Your task to perform on an android device: open app "VLC for Android" (install if not already installed) Image 0: 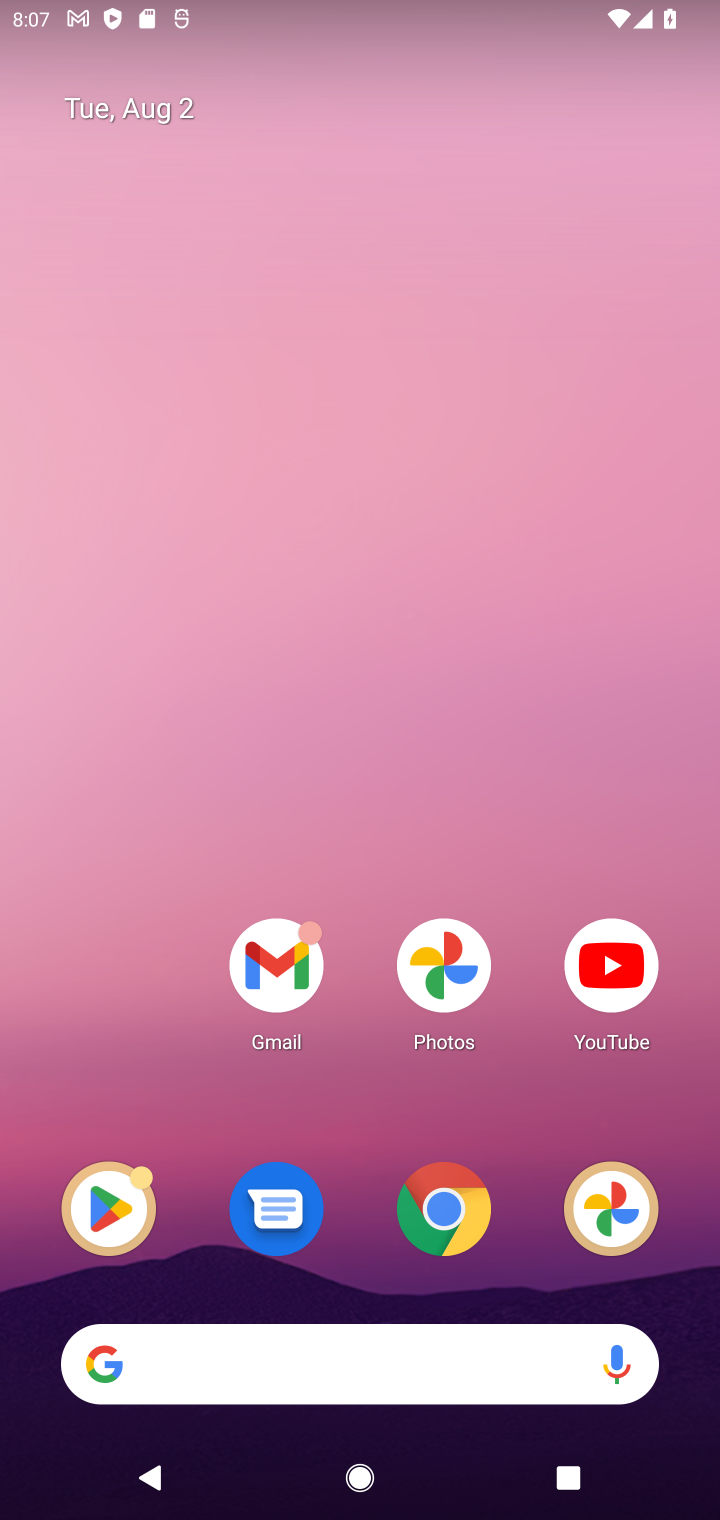
Step 0: drag from (346, 1189) to (483, 64)
Your task to perform on an android device: open app "VLC for Android" (install if not already installed) Image 1: 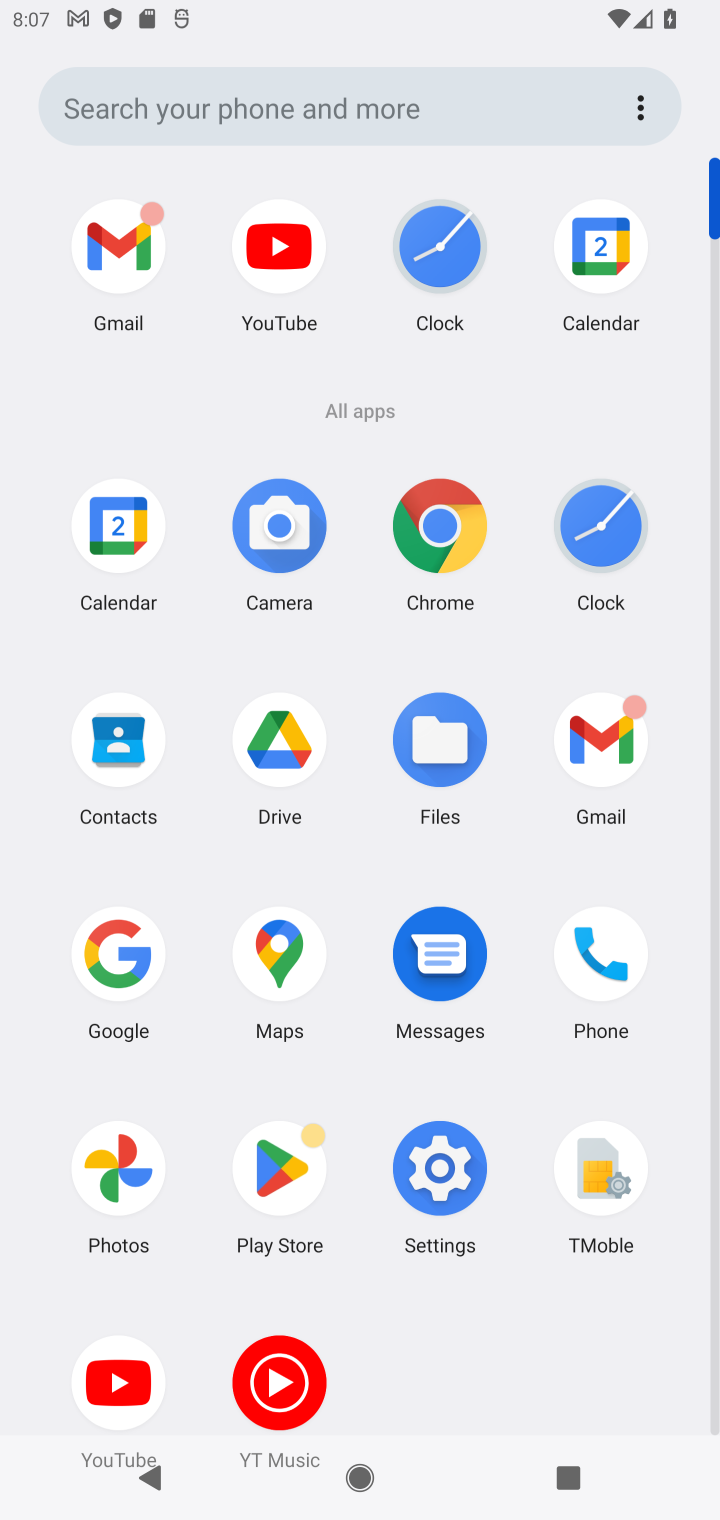
Step 1: click (264, 1194)
Your task to perform on an android device: open app "VLC for Android" (install if not already installed) Image 2: 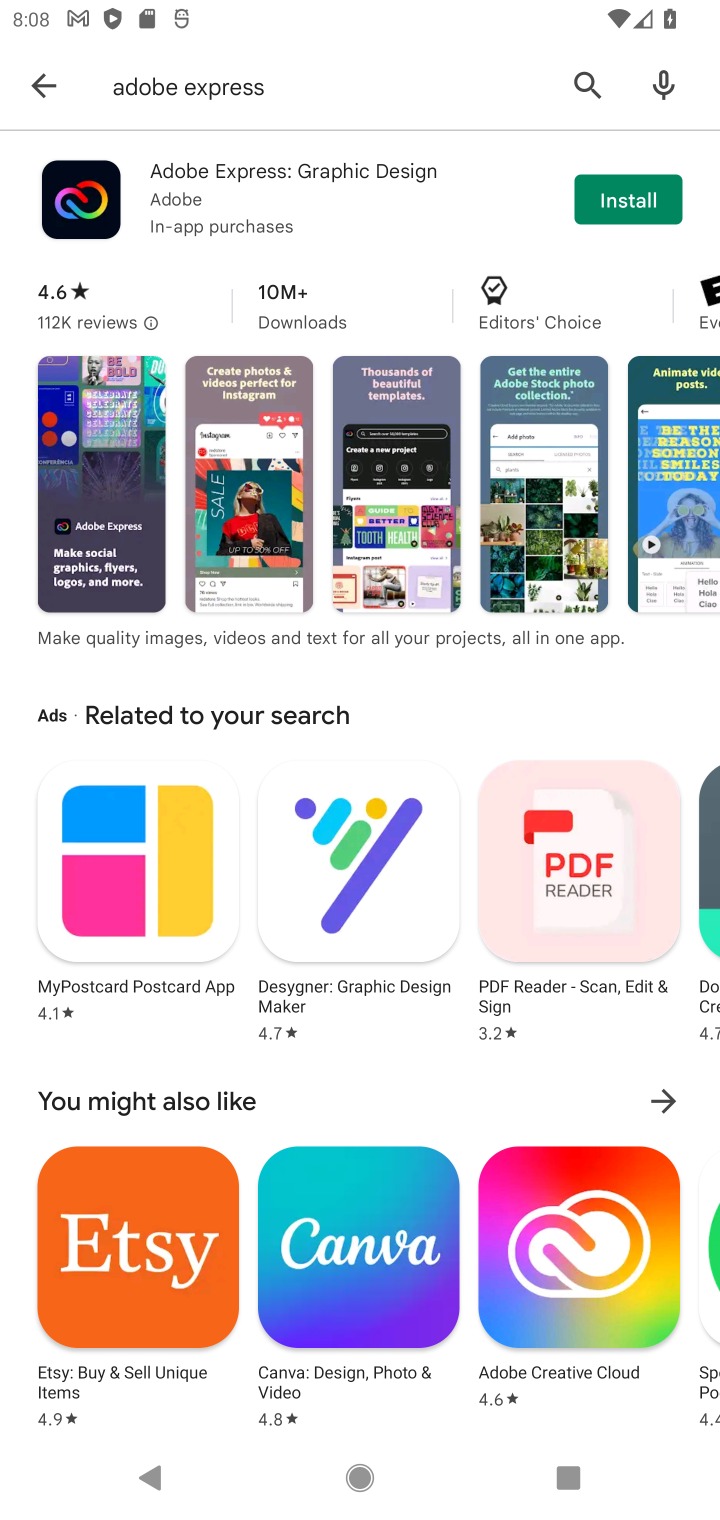
Step 2: click (22, 81)
Your task to perform on an android device: open app "VLC for Android" (install if not already installed) Image 3: 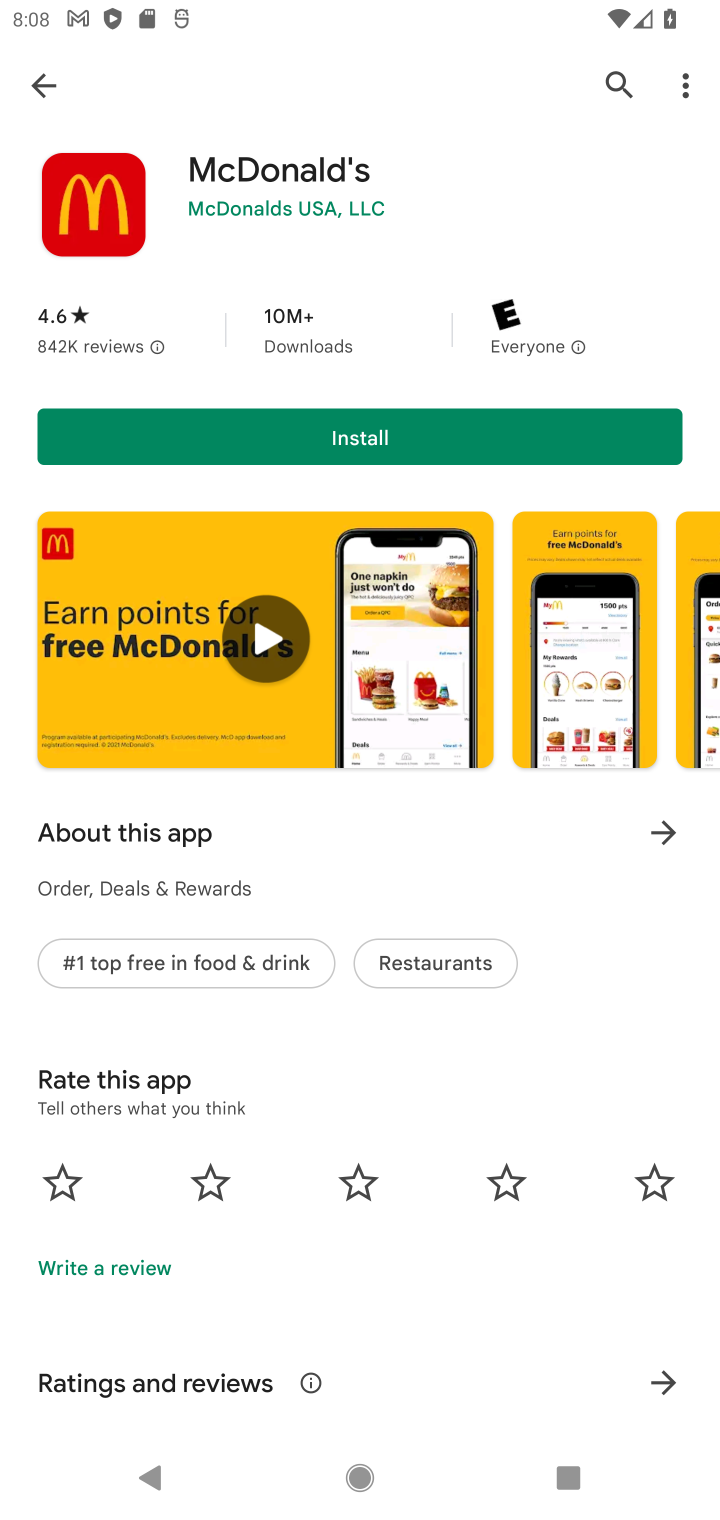
Step 3: click (48, 89)
Your task to perform on an android device: open app "VLC for Android" (install if not already installed) Image 4: 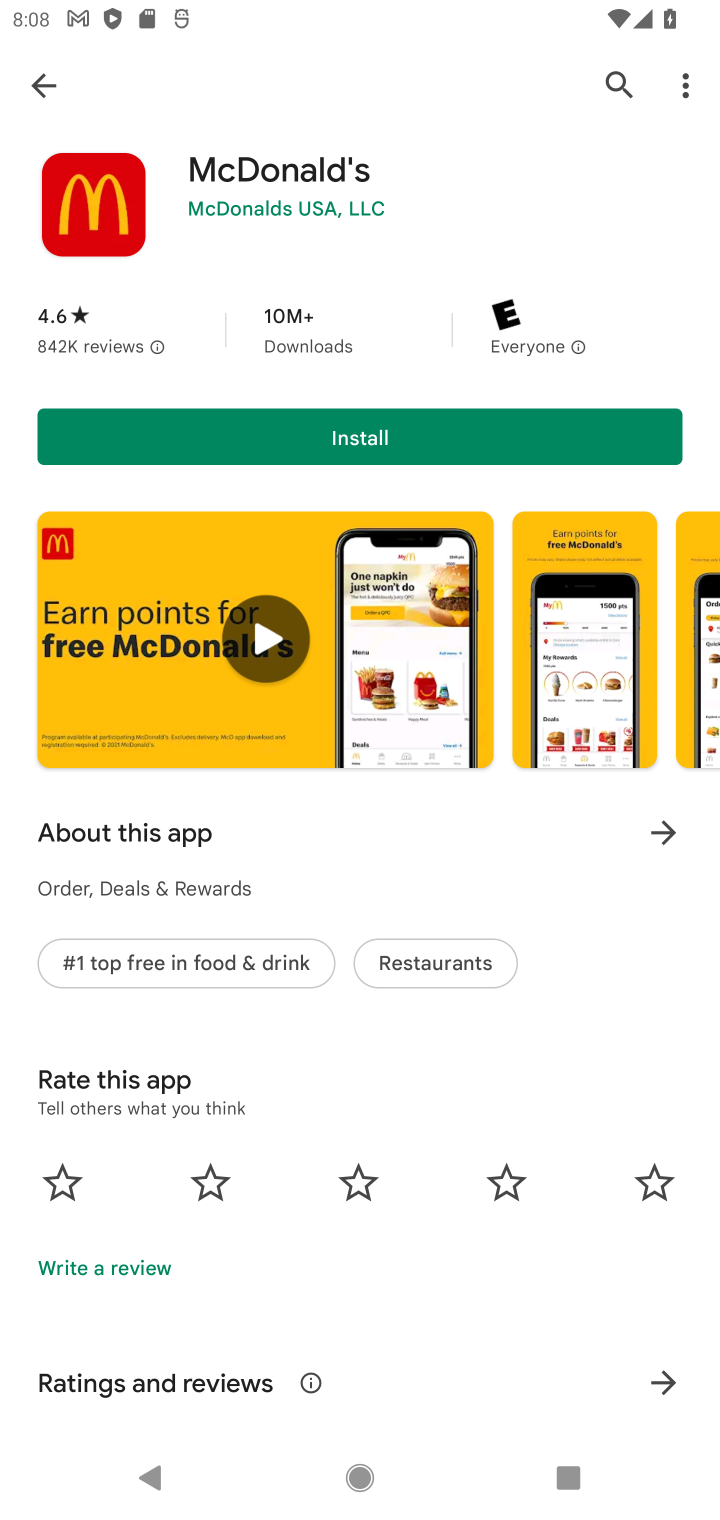
Step 4: click (20, 94)
Your task to perform on an android device: open app "VLC for Android" (install if not already installed) Image 5: 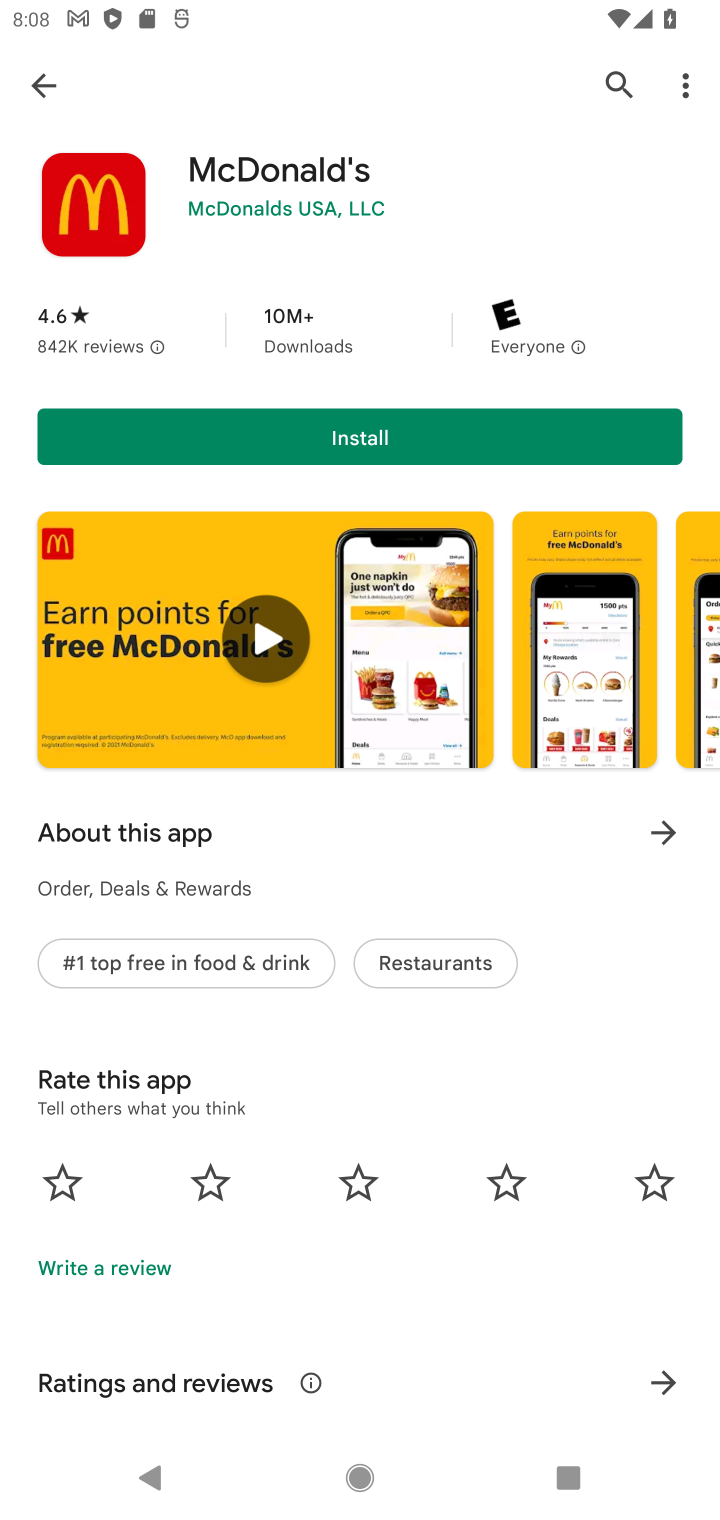
Step 5: click (40, 83)
Your task to perform on an android device: open app "VLC for Android" (install if not already installed) Image 6: 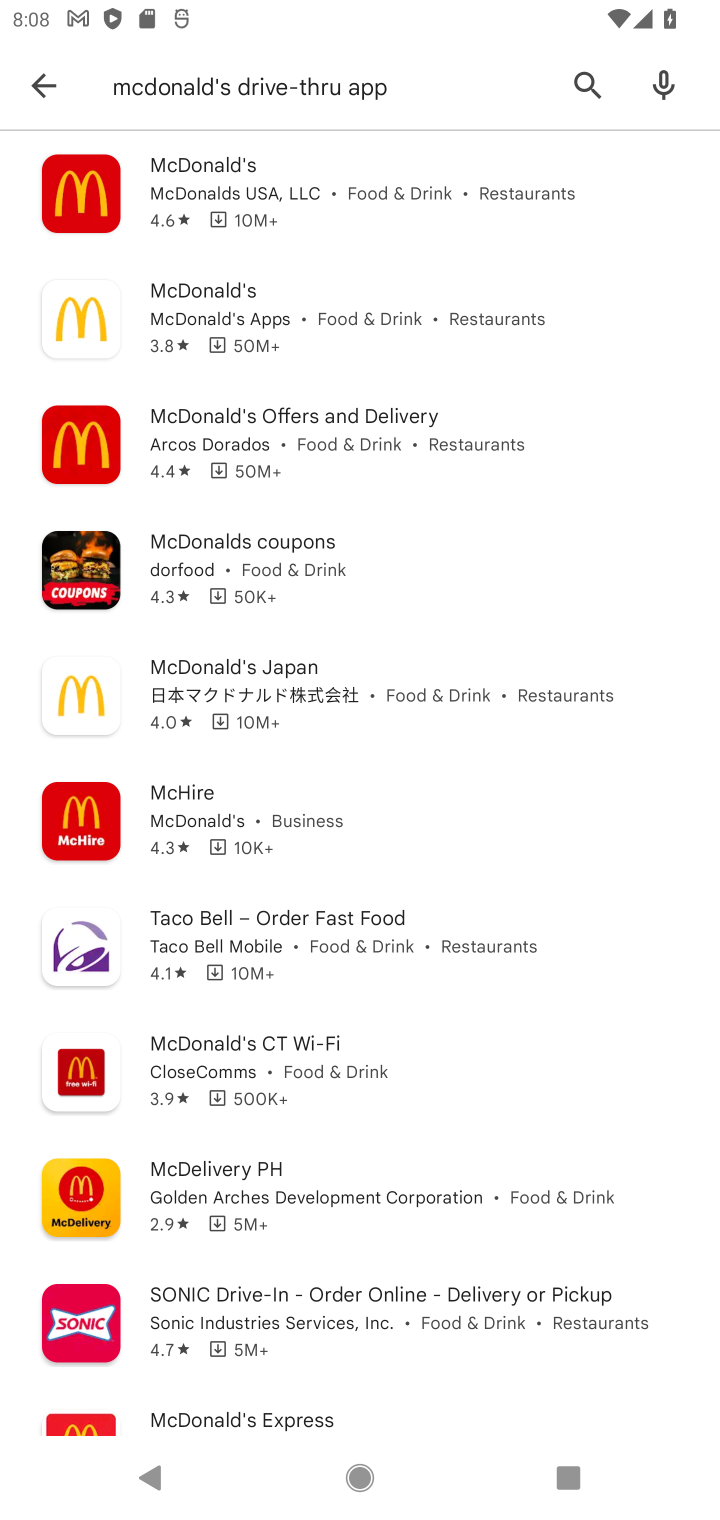
Step 6: click (33, 87)
Your task to perform on an android device: open app "VLC for Android" (install if not already installed) Image 7: 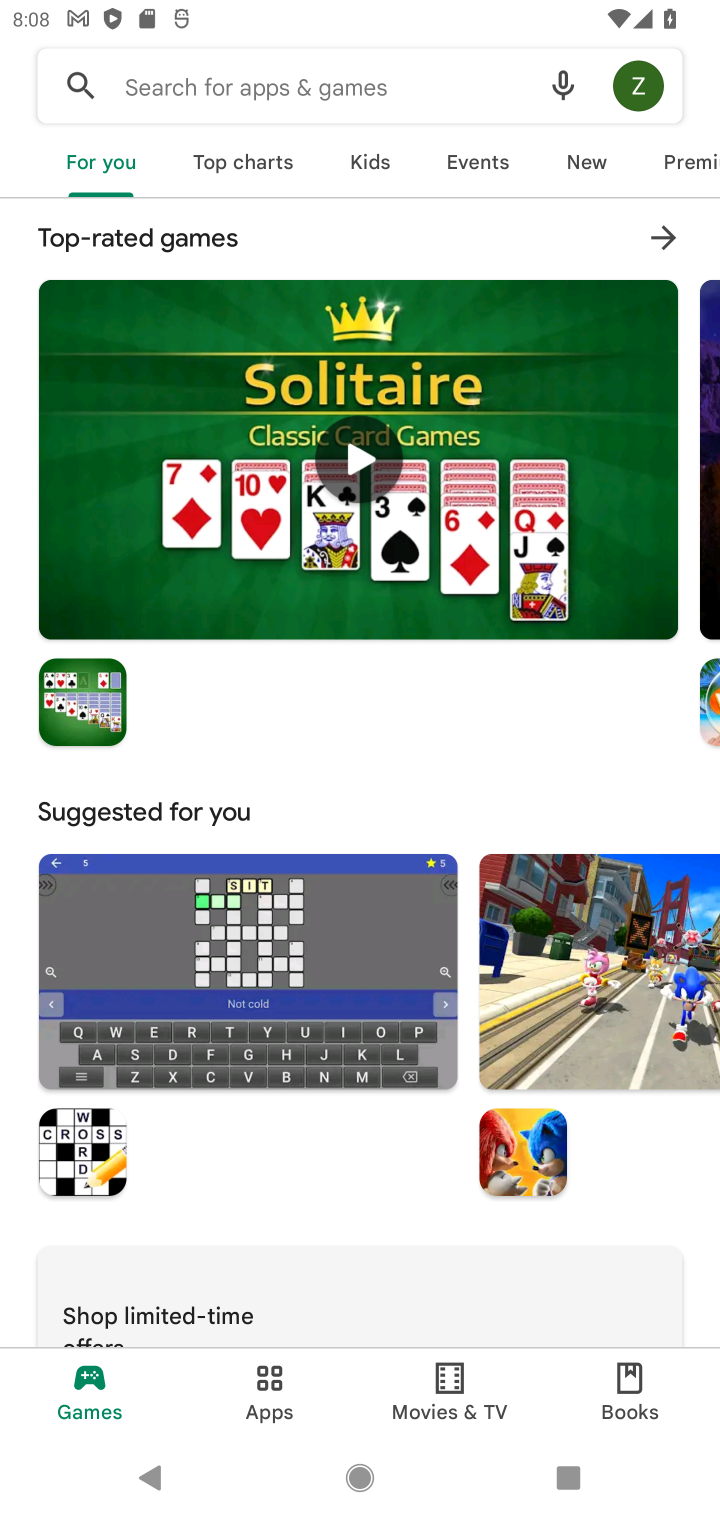
Step 7: click (442, 88)
Your task to perform on an android device: open app "VLC for Android" (install if not already installed) Image 8: 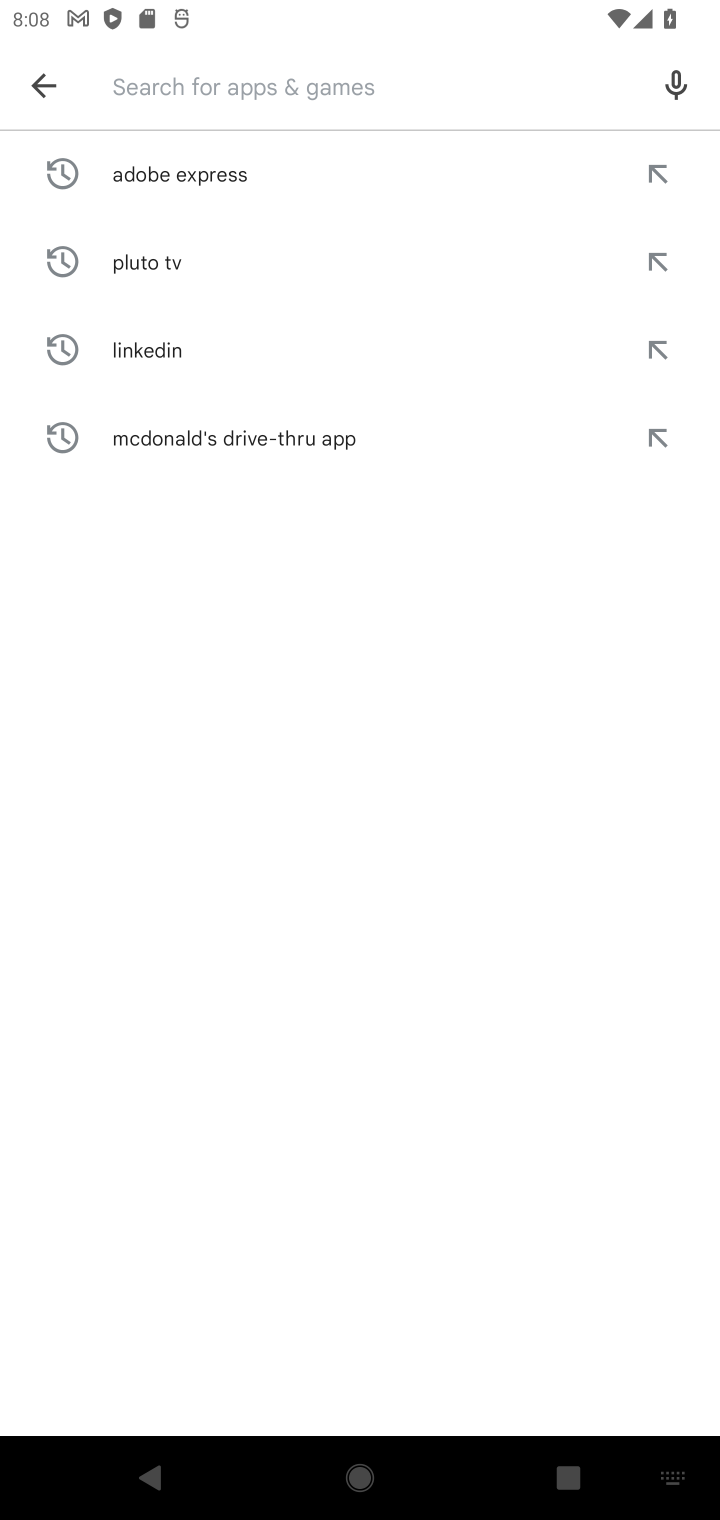
Step 8: type "VLC for Android"
Your task to perform on an android device: open app "VLC for Android" (install if not already installed) Image 9: 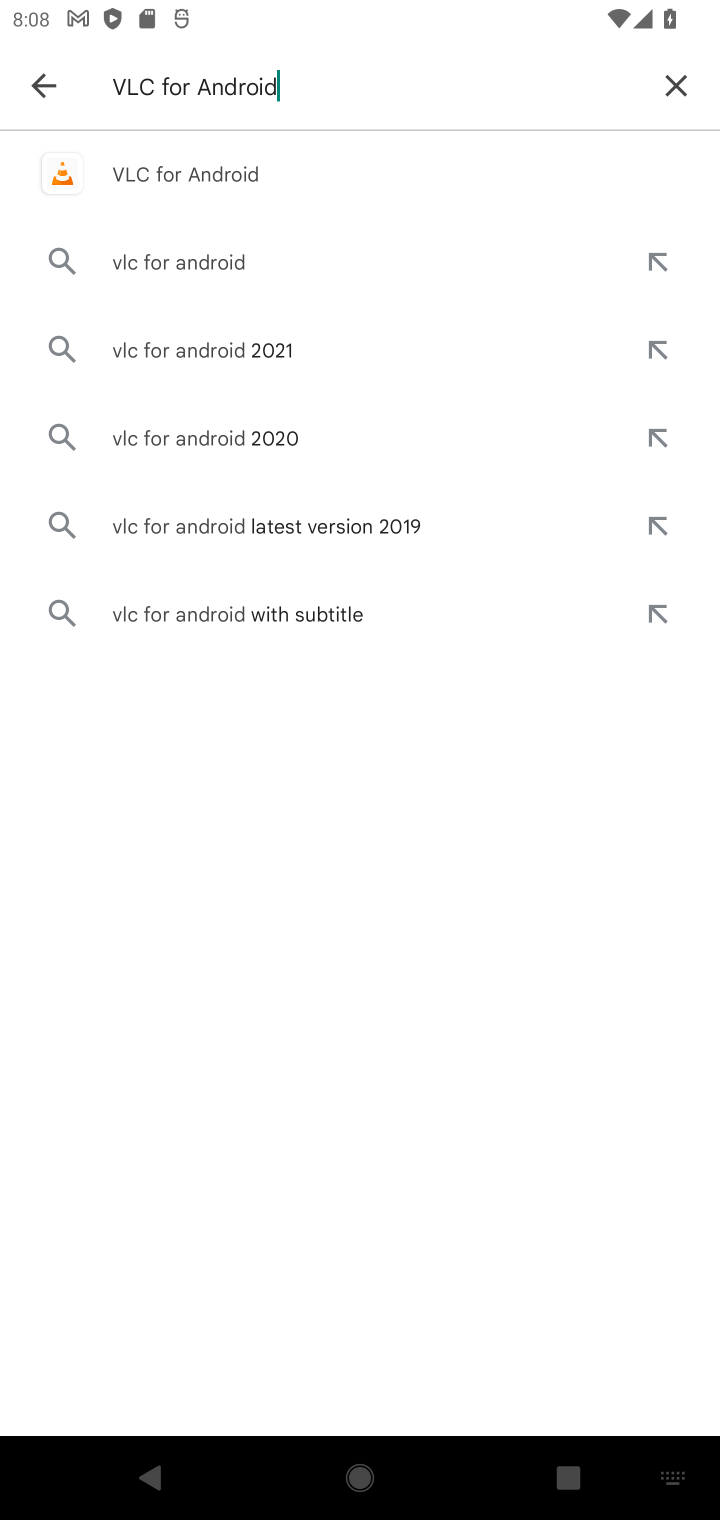
Step 9: click (112, 157)
Your task to perform on an android device: open app "VLC for Android" (install if not already installed) Image 10: 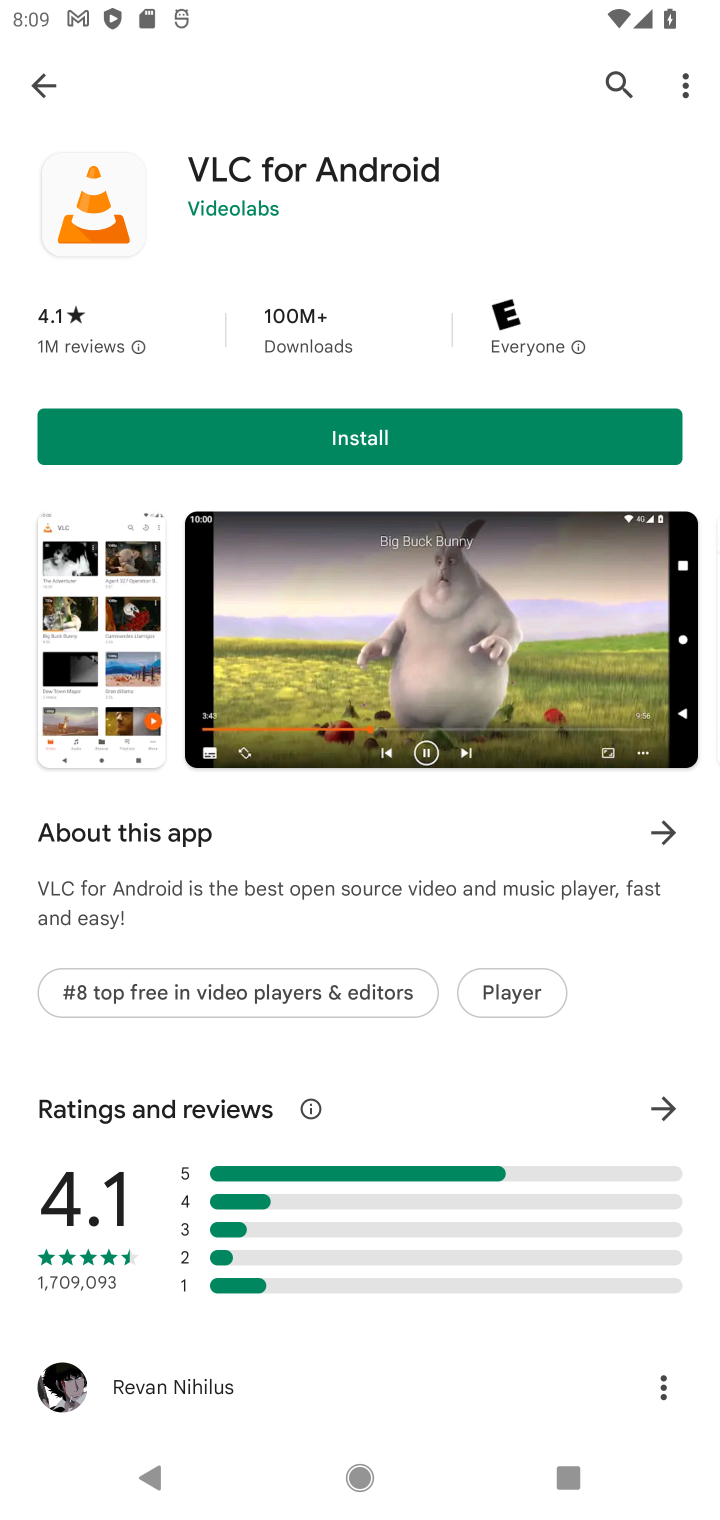
Step 10: click (407, 438)
Your task to perform on an android device: open app "VLC for Android" (install if not already installed) Image 11: 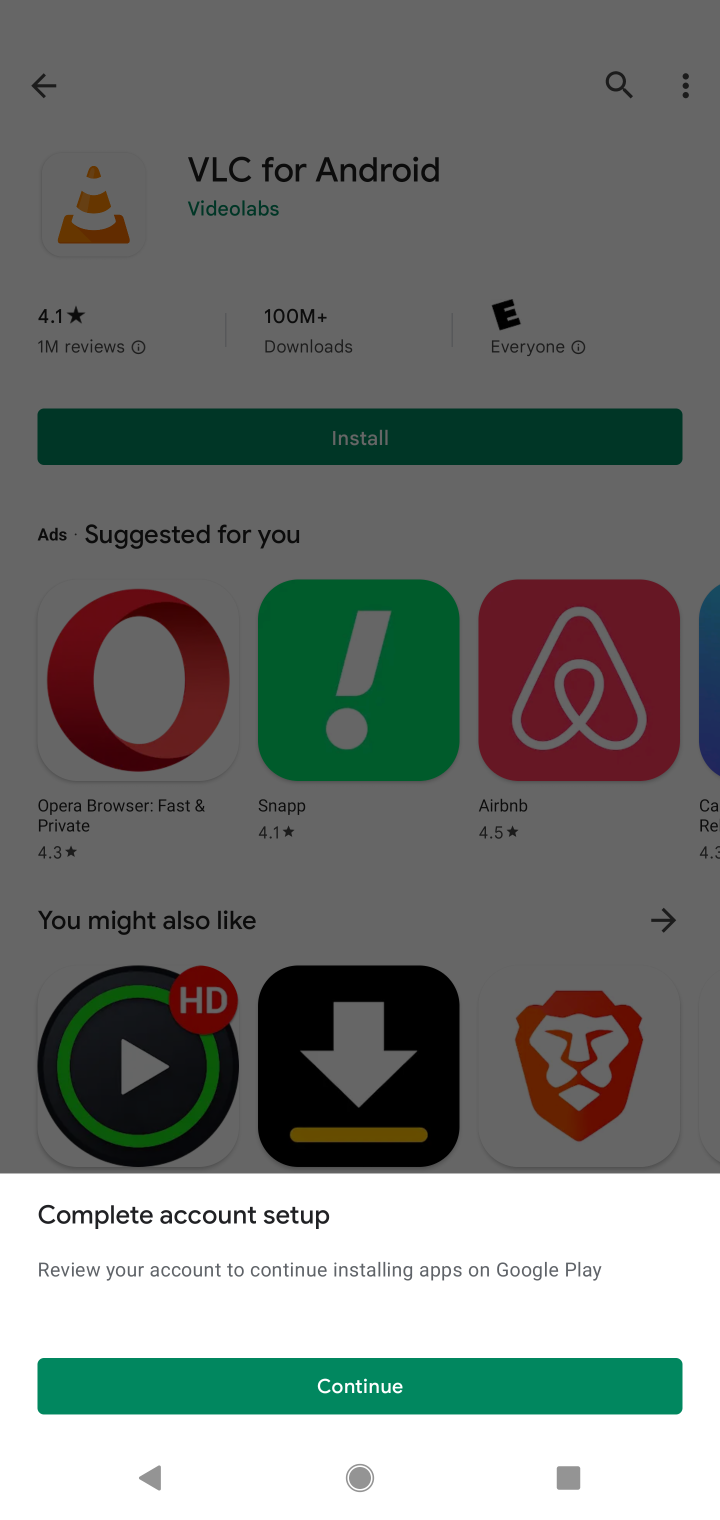
Step 11: click (391, 1395)
Your task to perform on an android device: open app "VLC for Android" (install if not already installed) Image 12: 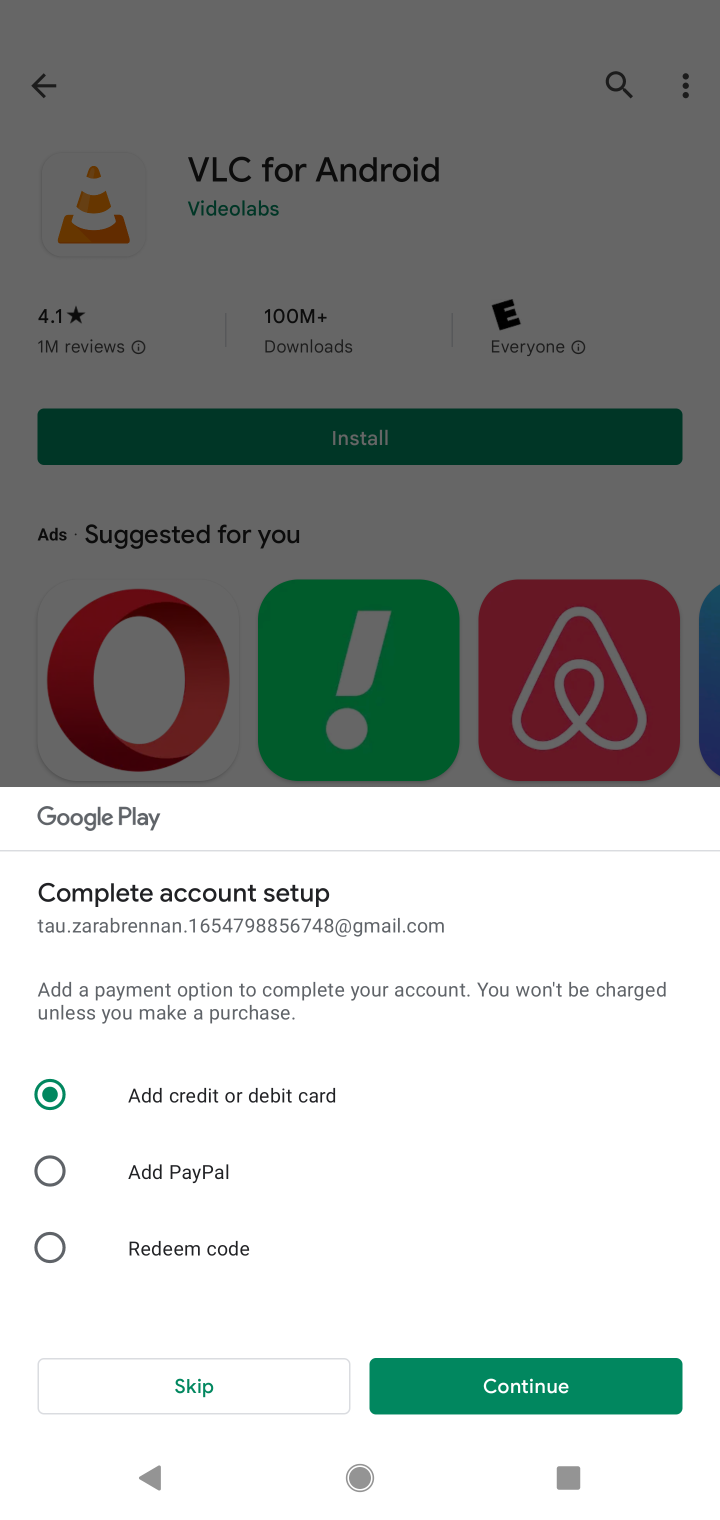
Step 12: click (208, 1391)
Your task to perform on an android device: open app "VLC for Android" (install if not already installed) Image 13: 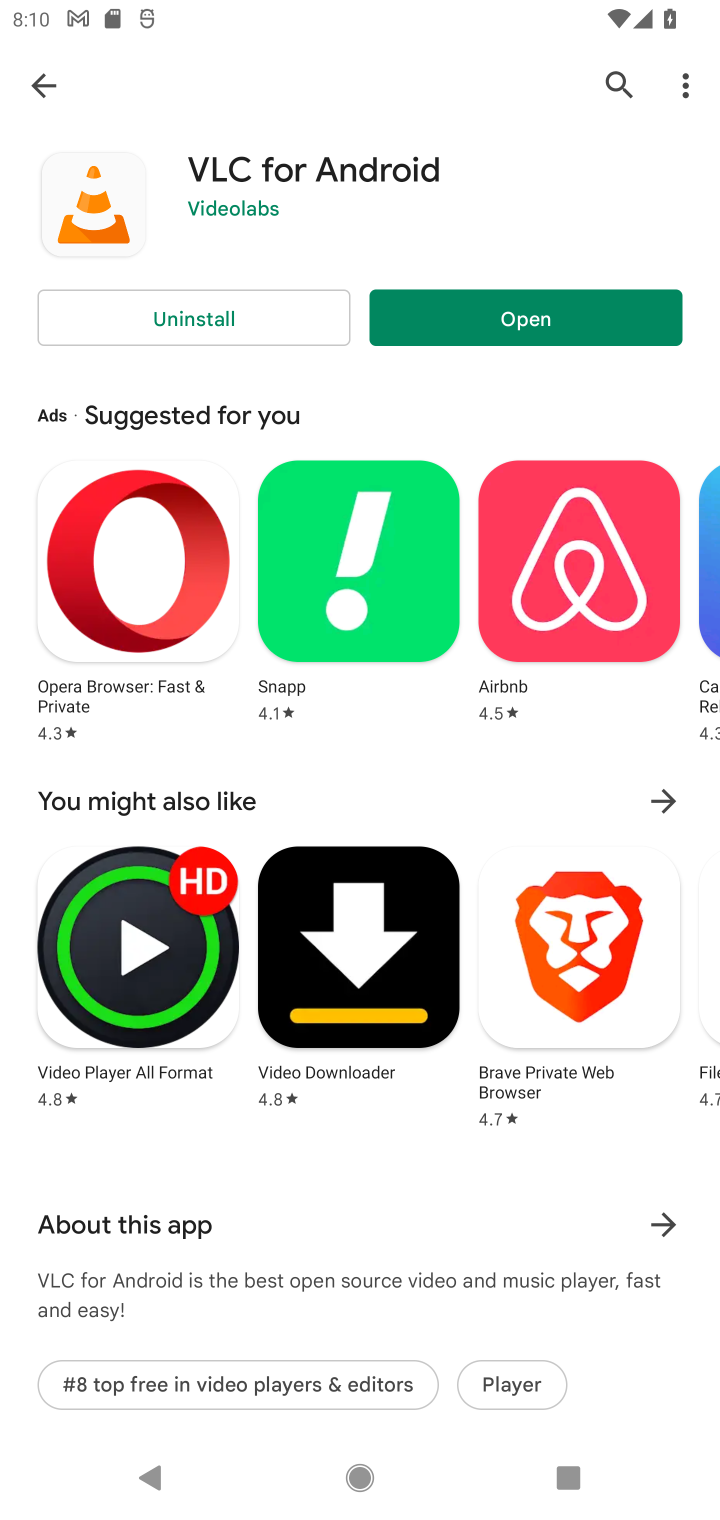
Step 13: click (571, 327)
Your task to perform on an android device: open app "VLC for Android" (install if not already installed) Image 14: 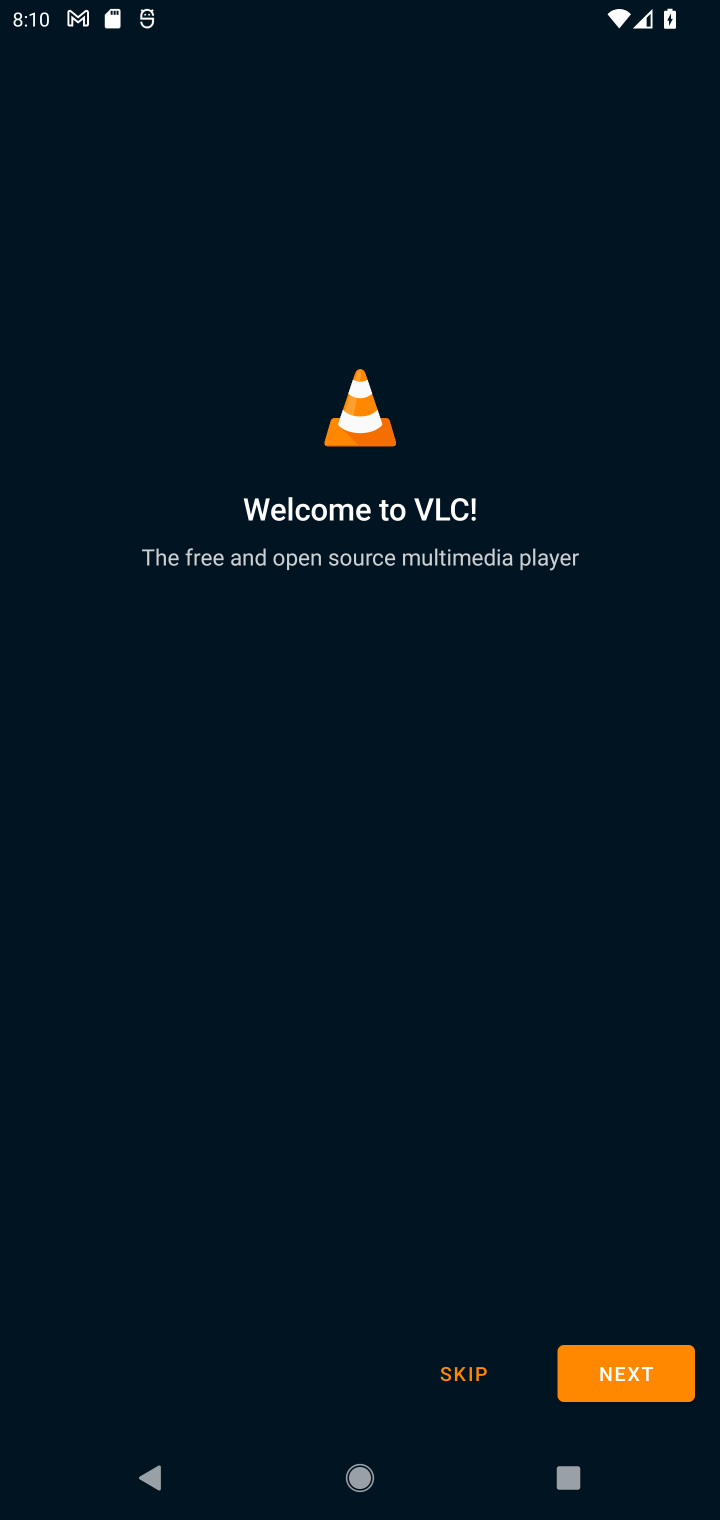
Step 14: click (465, 1378)
Your task to perform on an android device: open app "VLC for Android" (install if not already installed) Image 15: 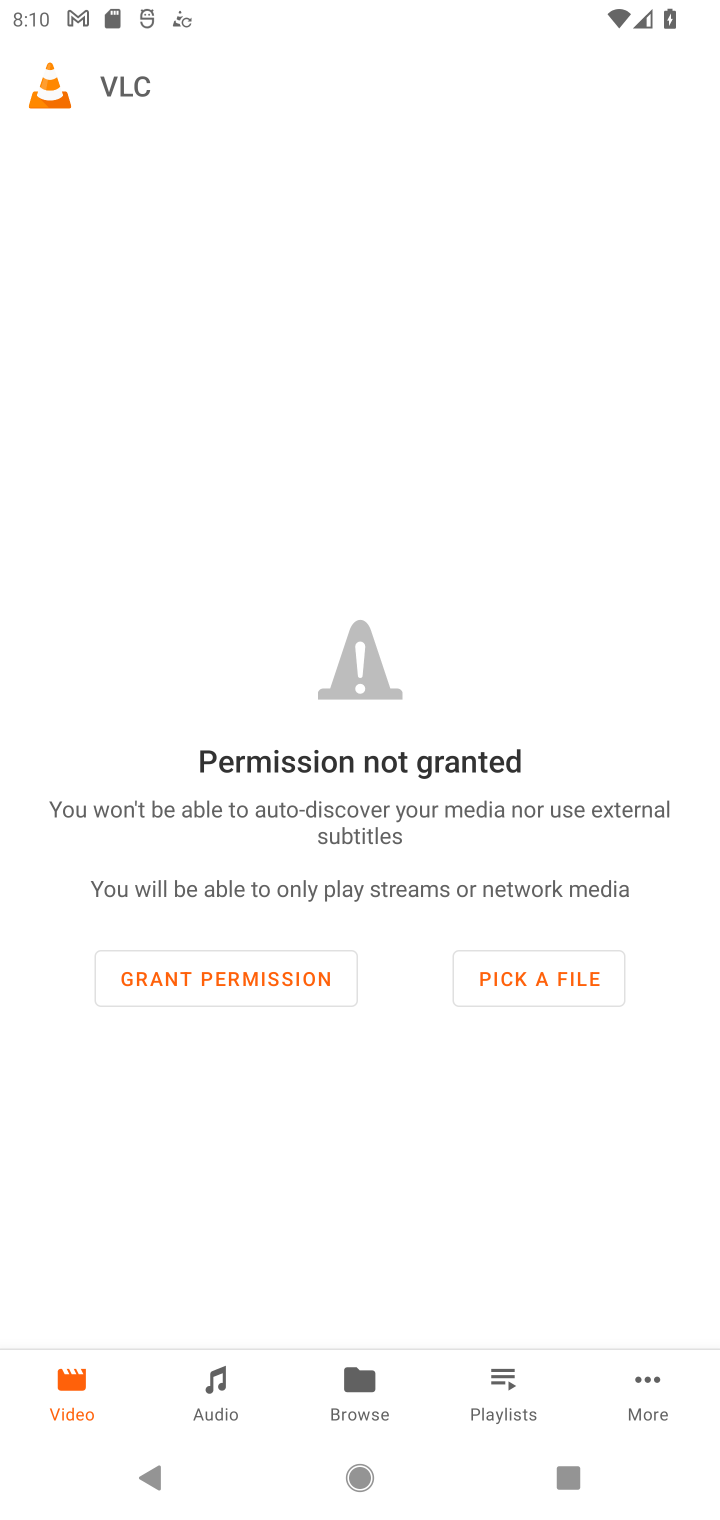
Step 15: task complete